Your task to perform on an android device: clear all cookies in the chrome app Image 0: 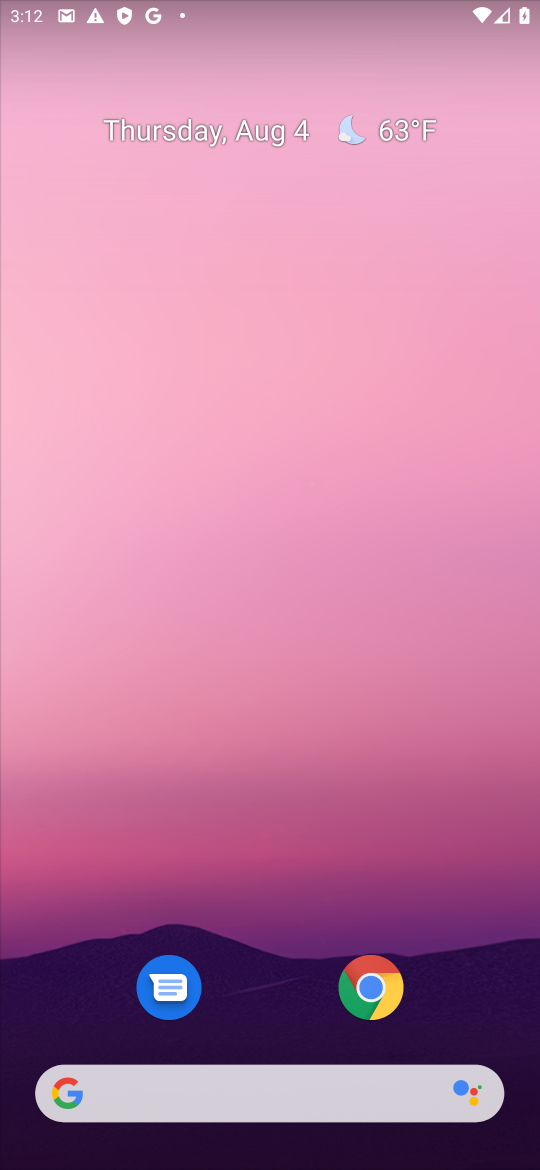
Step 0: click (367, 997)
Your task to perform on an android device: clear all cookies in the chrome app Image 1: 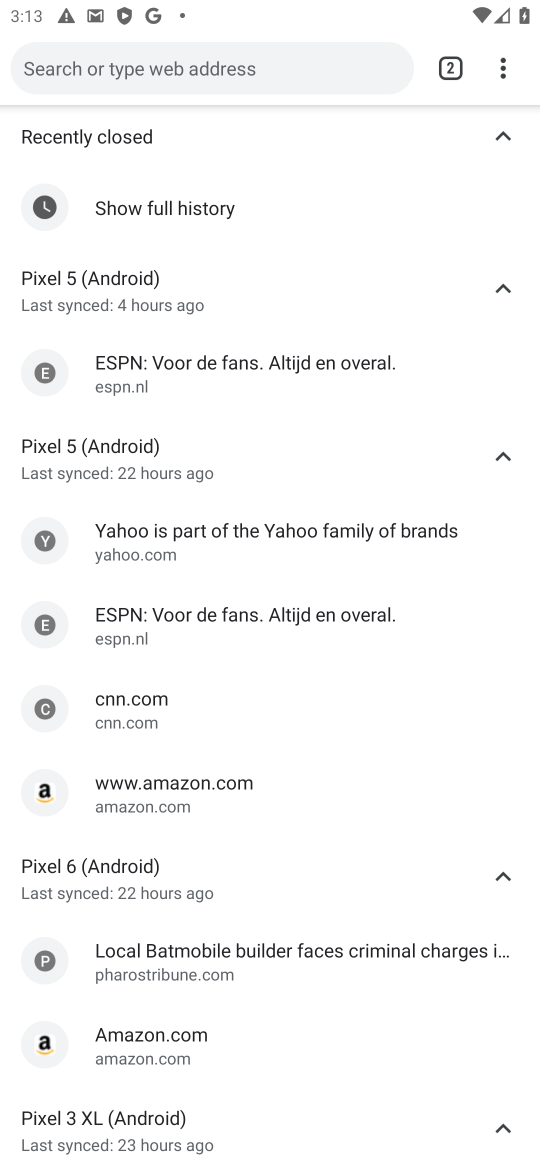
Step 1: click (503, 61)
Your task to perform on an android device: clear all cookies in the chrome app Image 2: 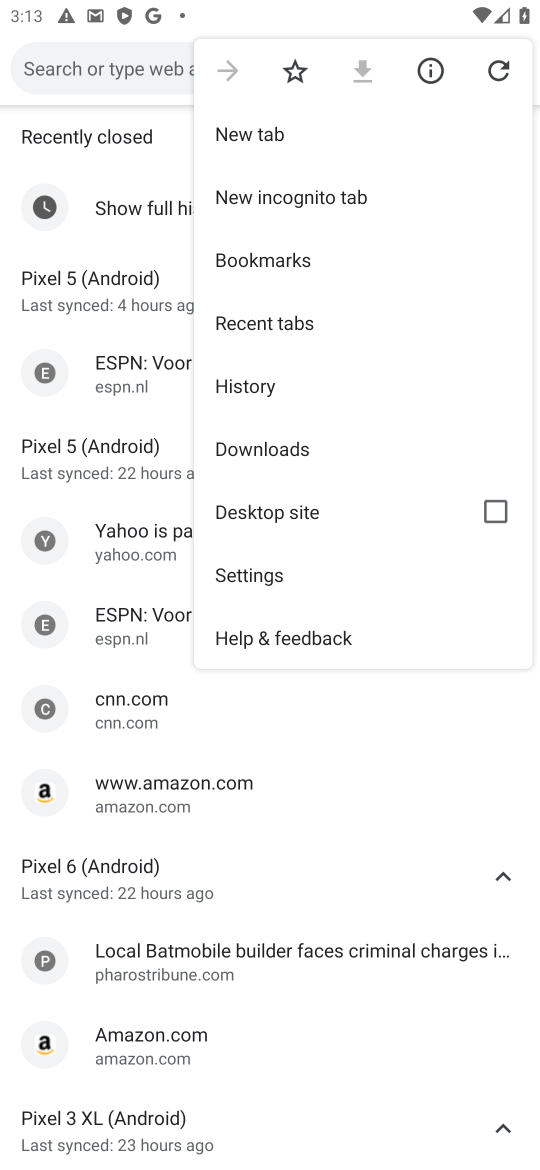
Step 2: click (267, 389)
Your task to perform on an android device: clear all cookies in the chrome app Image 3: 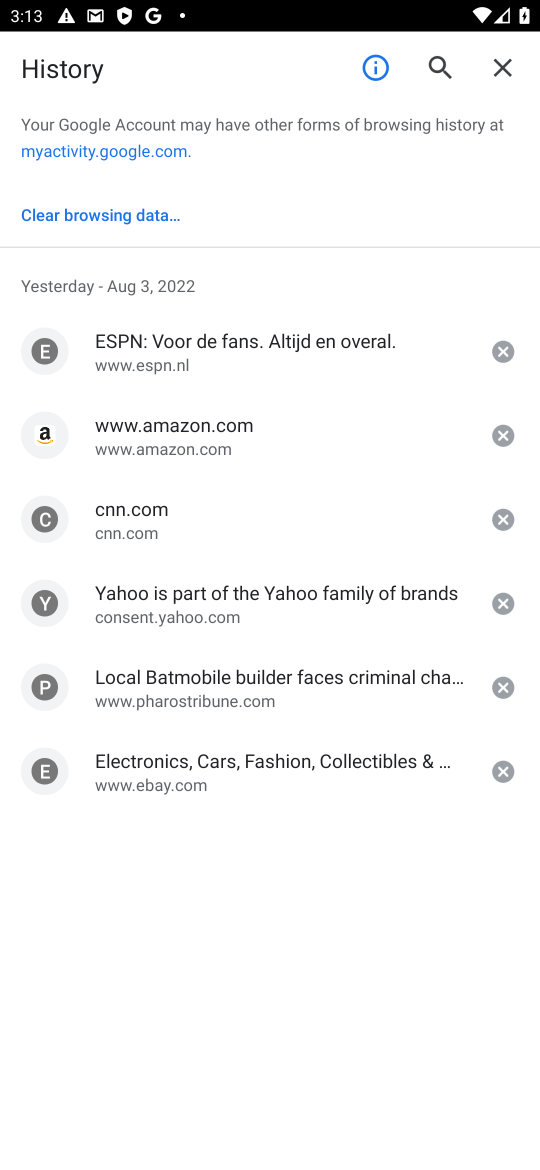
Step 3: click (134, 217)
Your task to perform on an android device: clear all cookies in the chrome app Image 4: 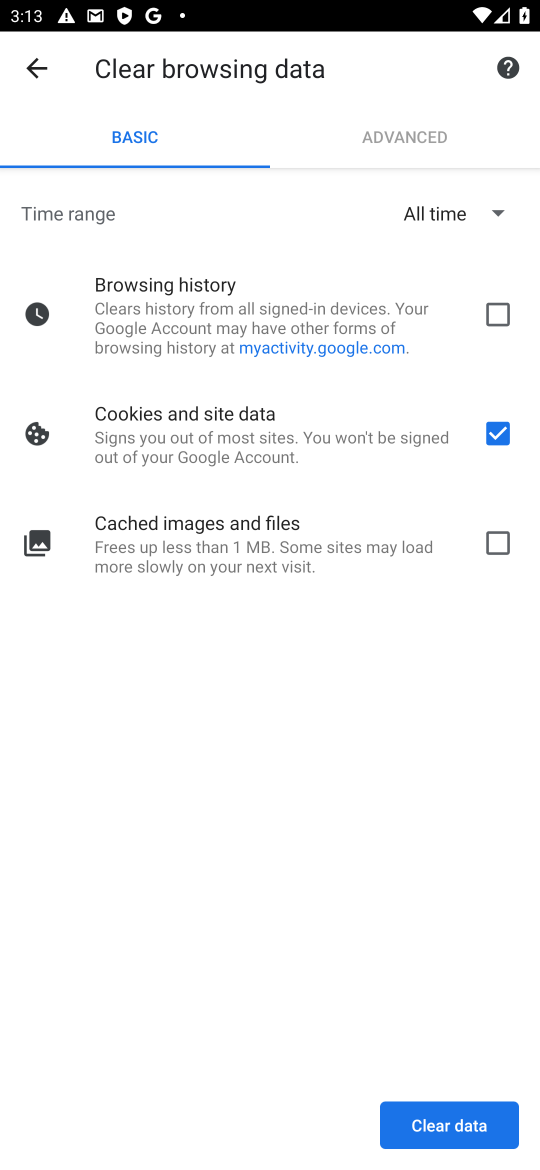
Step 4: click (439, 1116)
Your task to perform on an android device: clear all cookies in the chrome app Image 5: 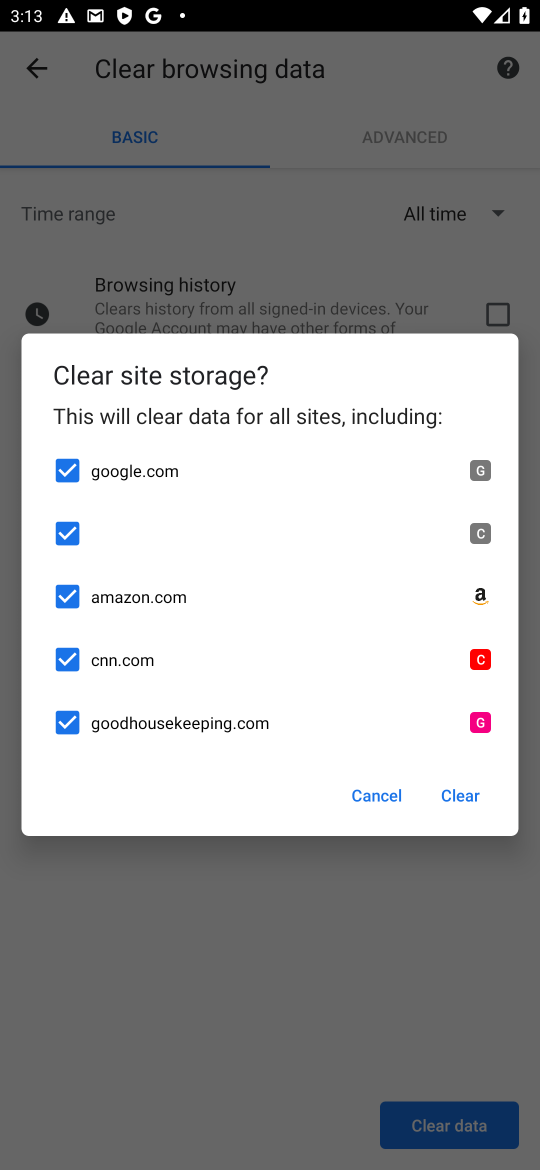
Step 5: click (463, 803)
Your task to perform on an android device: clear all cookies in the chrome app Image 6: 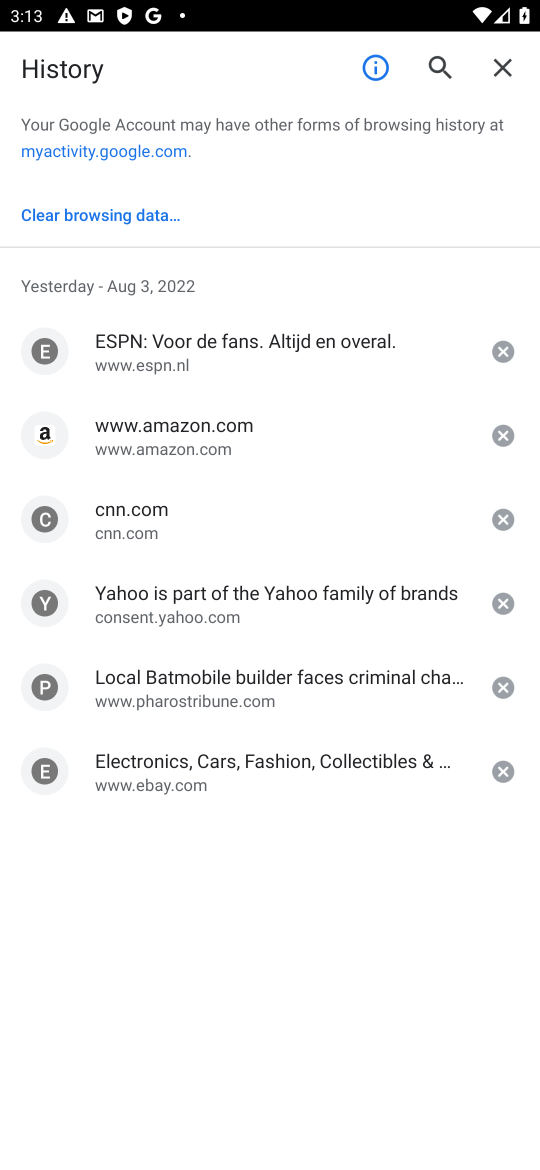
Step 6: task complete